Your task to perform on an android device: toggle translation in the chrome app Image 0: 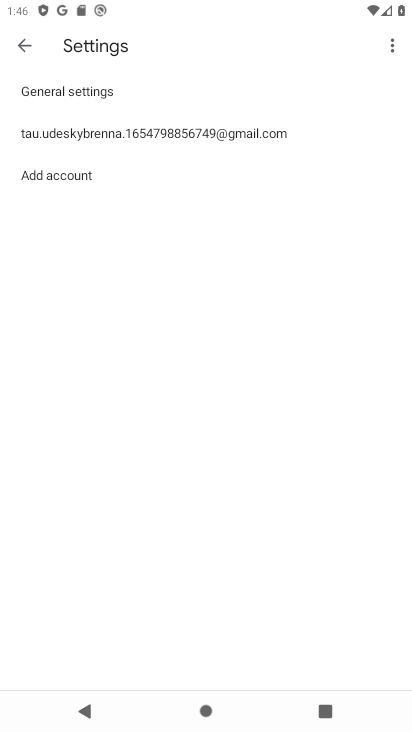
Step 0: press home button
Your task to perform on an android device: toggle translation in the chrome app Image 1: 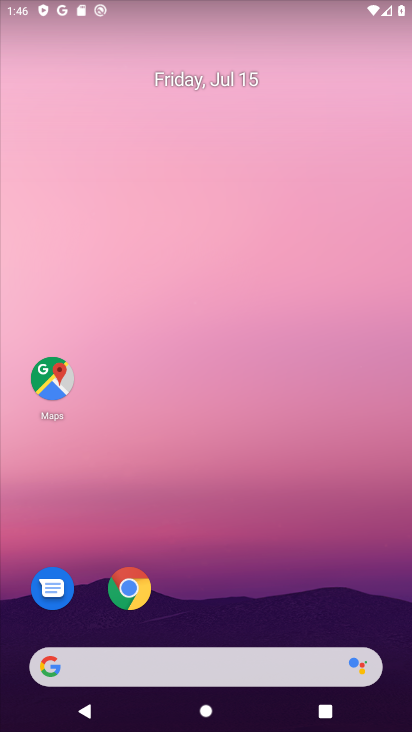
Step 1: drag from (290, 637) to (260, 59)
Your task to perform on an android device: toggle translation in the chrome app Image 2: 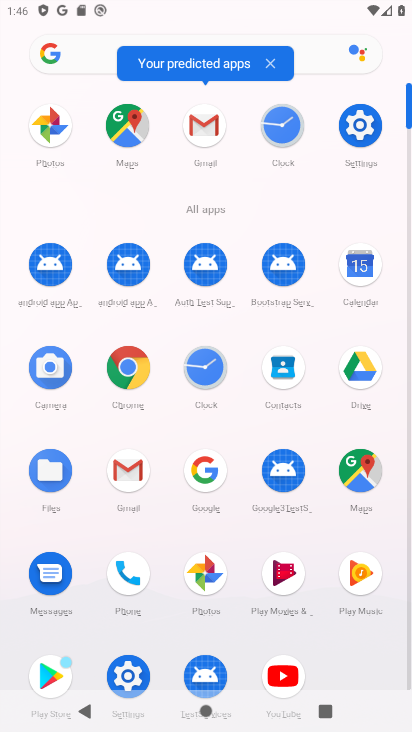
Step 2: click (139, 401)
Your task to perform on an android device: toggle translation in the chrome app Image 3: 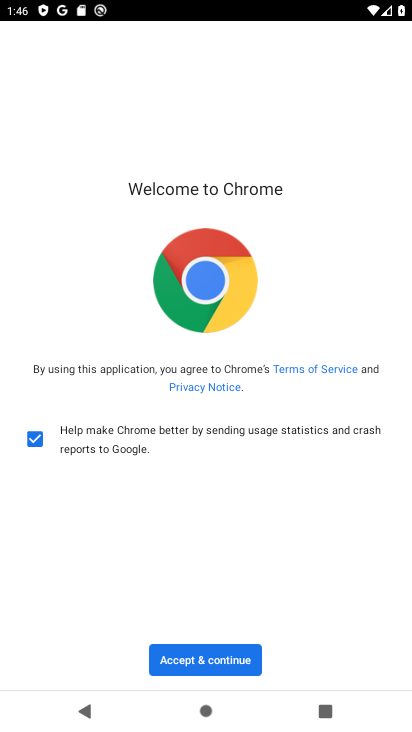
Step 3: click (227, 648)
Your task to perform on an android device: toggle translation in the chrome app Image 4: 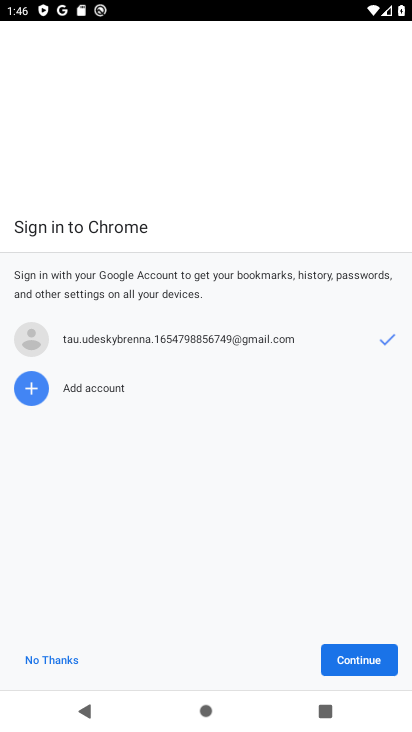
Step 4: click (328, 668)
Your task to perform on an android device: toggle translation in the chrome app Image 5: 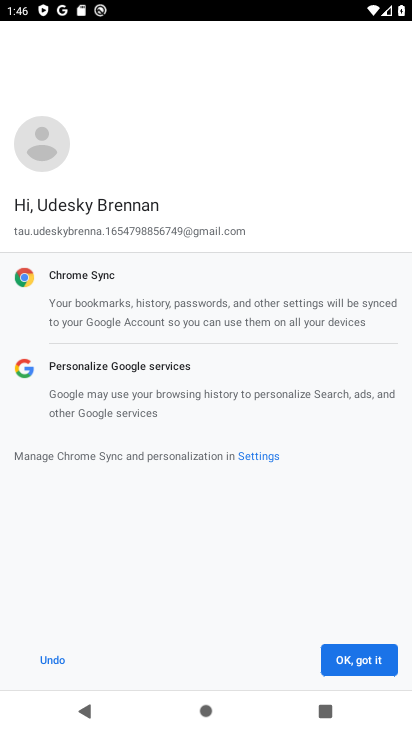
Step 5: click (328, 668)
Your task to perform on an android device: toggle translation in the chrome app Image 6: 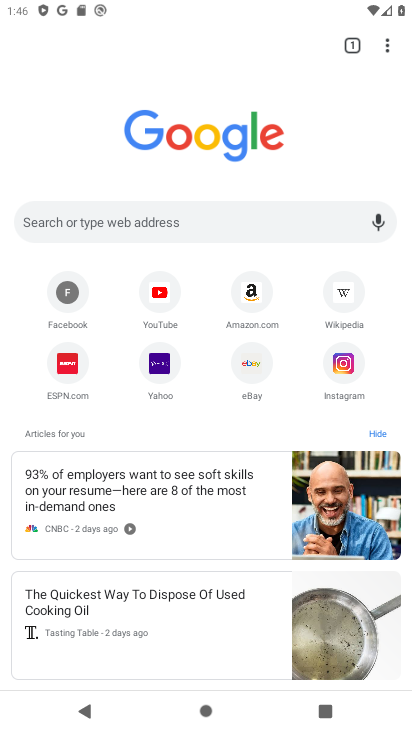
Step 6: task complete